Your task to perform on an android device: Check the weather Image 0: 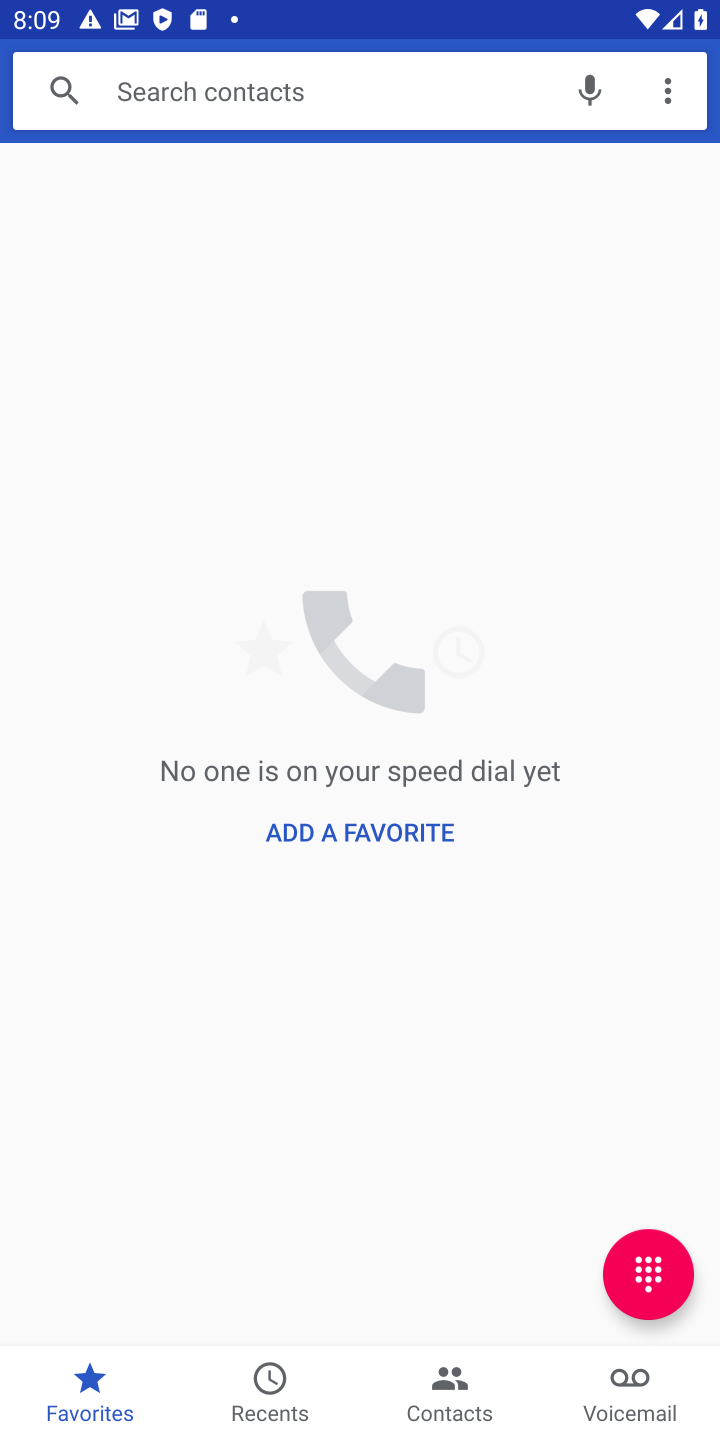
Step 0: press home button
Your task to perform on an android device: Check the weather Image 1: 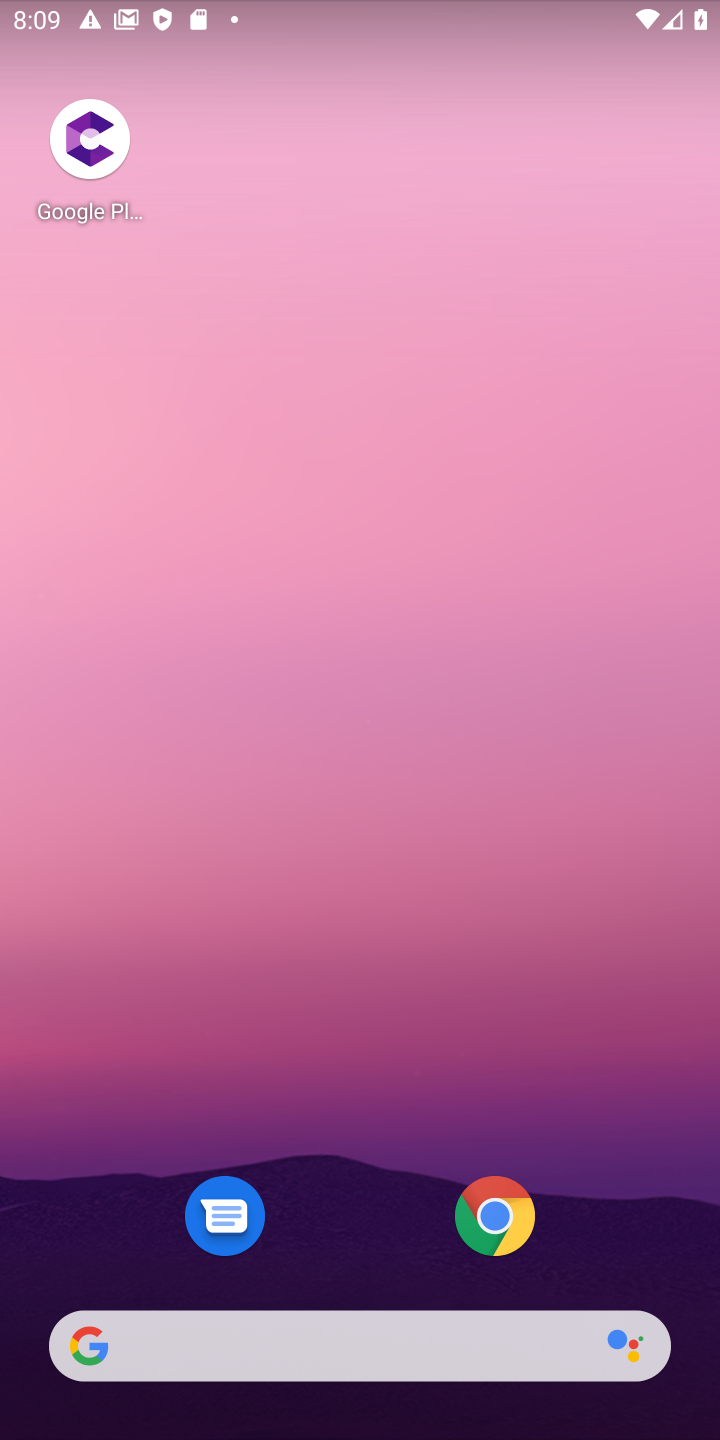
Step 1: drag from (338, 1224) to (627, 58)
Your task to perform on an android device: Check the weather Image 2: 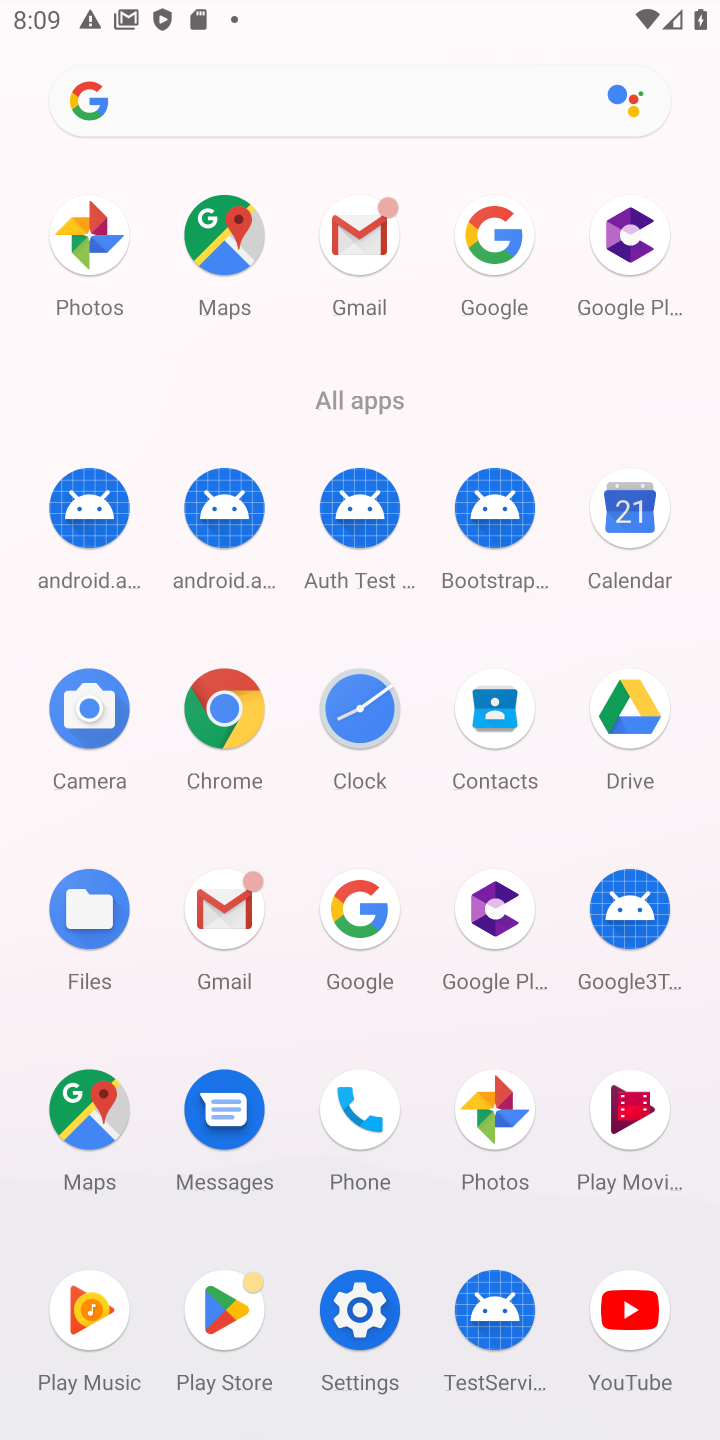
Step 2: click (209, 717)
Your task to perform on an android device: Check the weather Image 3: 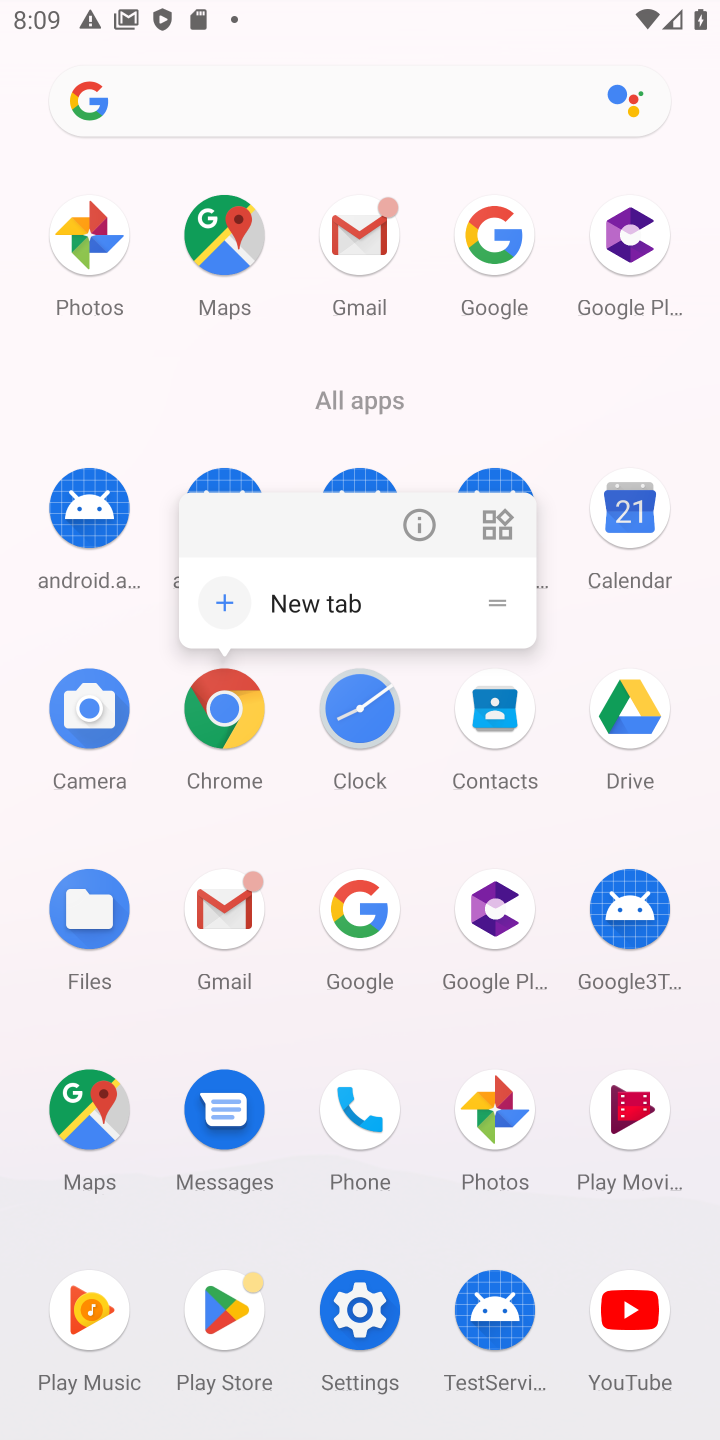
Step 3: click (226, 705)
Your task to perform on an android device: Check the weather Image 4: 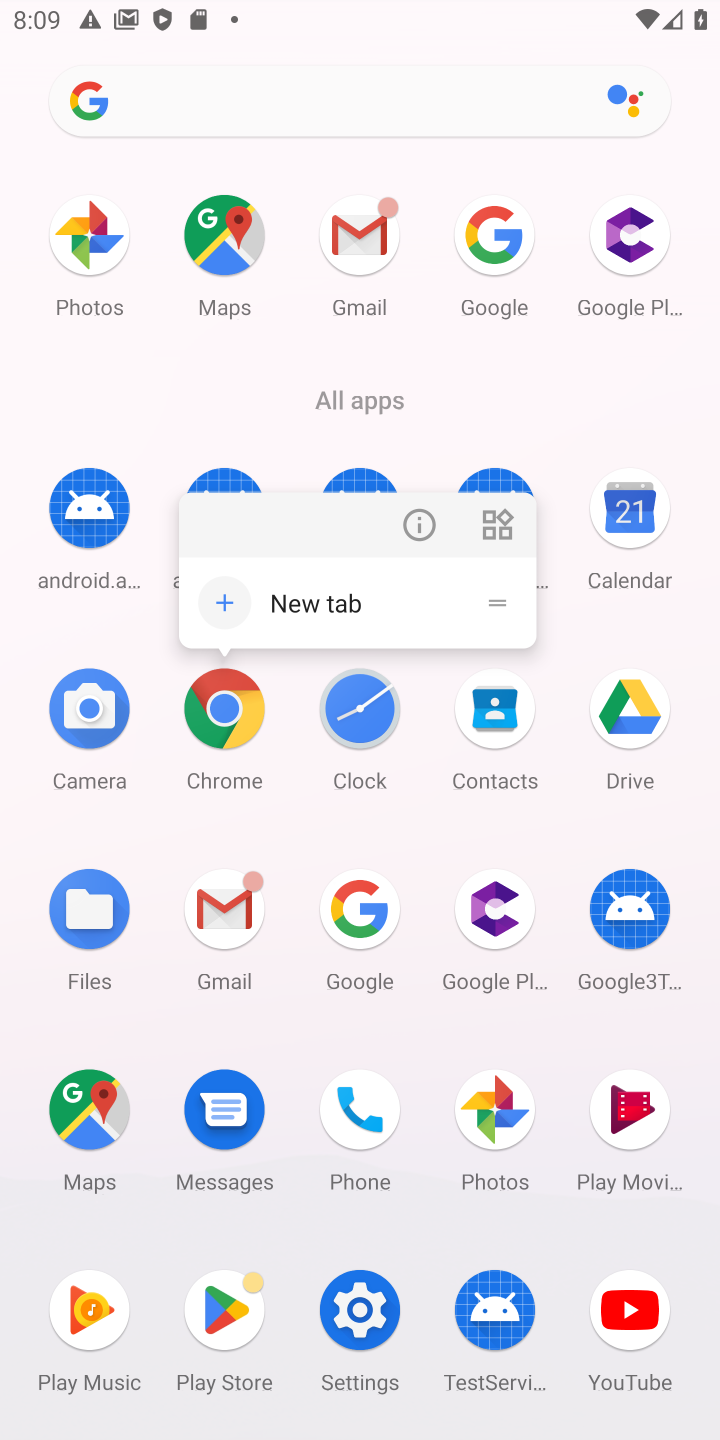
Step 4: click (215, 709)
Your task to perform on an android device: Check the weather Image 5: 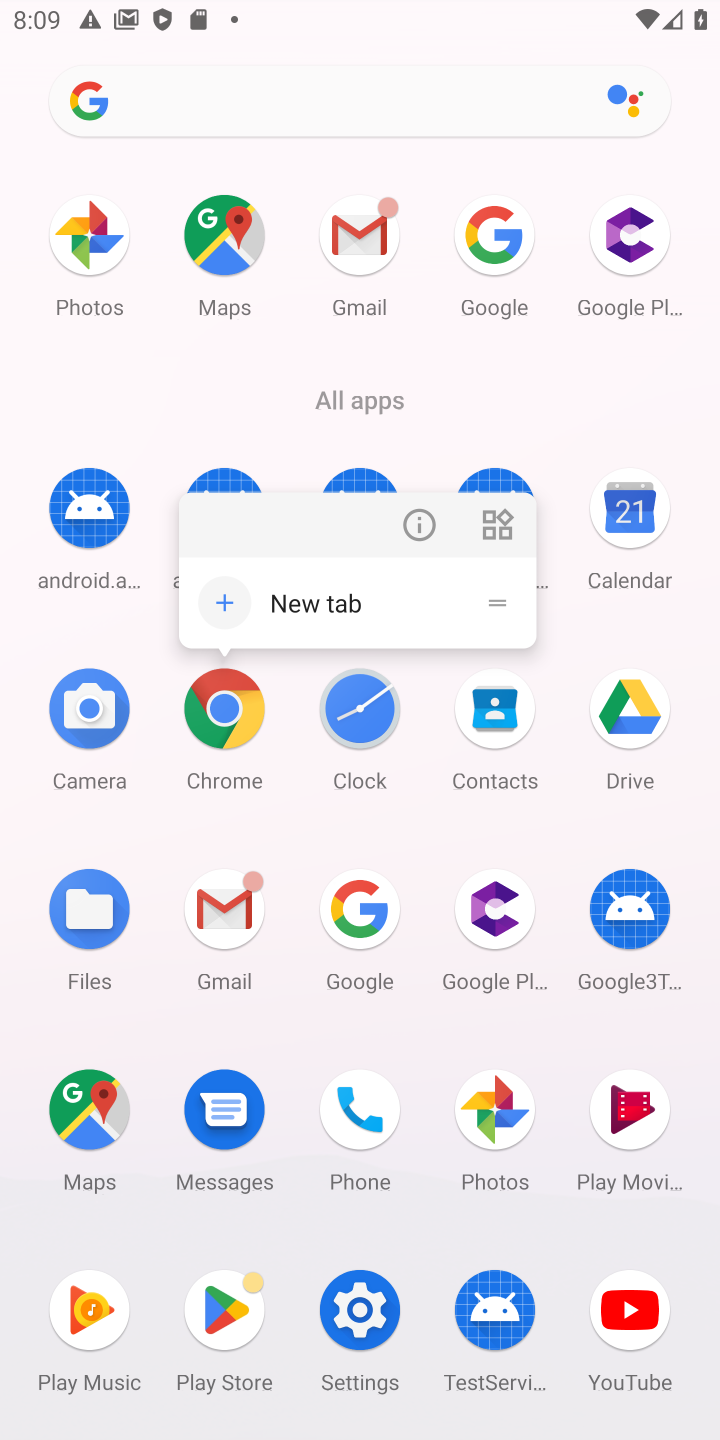
Step 5: click (215, 709)
Your task to perform on an android device: Check the weather Image 6: 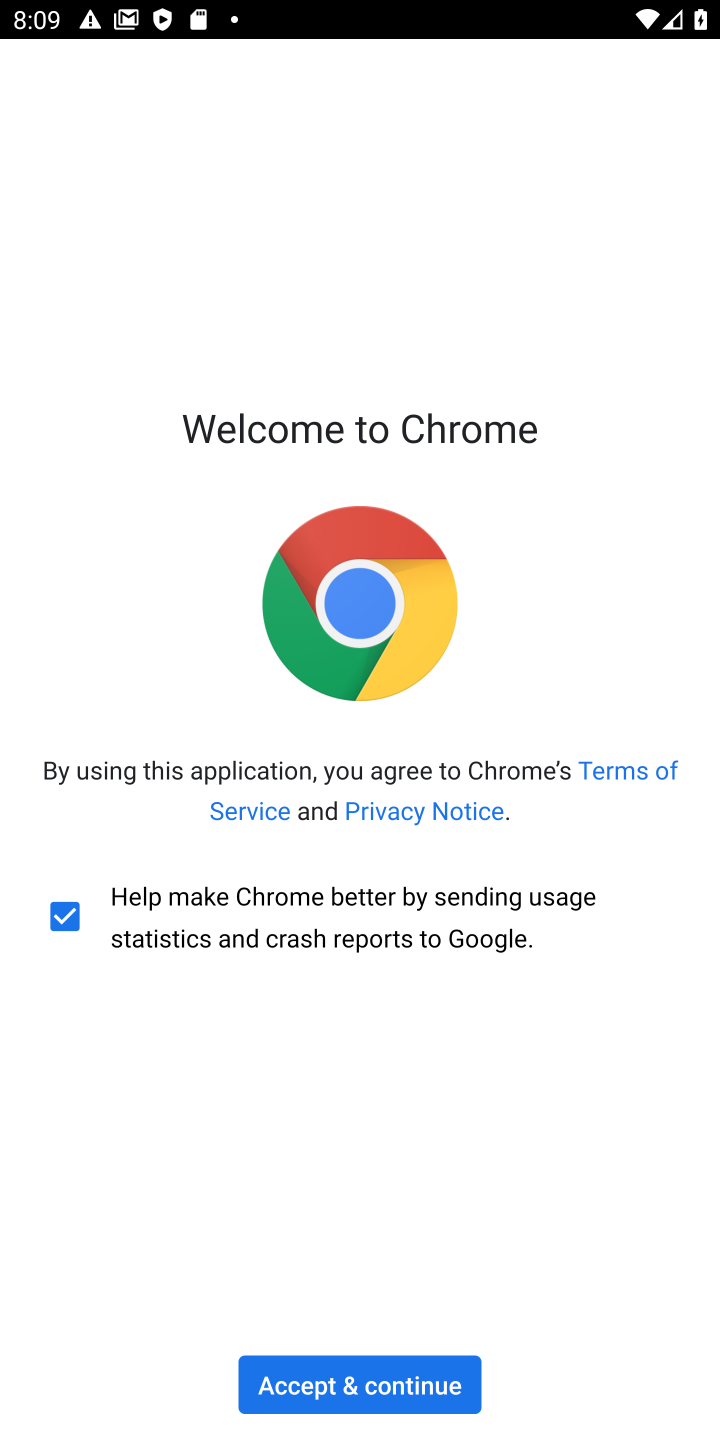
Step 6: click (360, 1372)
Your task to perform on an android device: Check the weather Image 7: 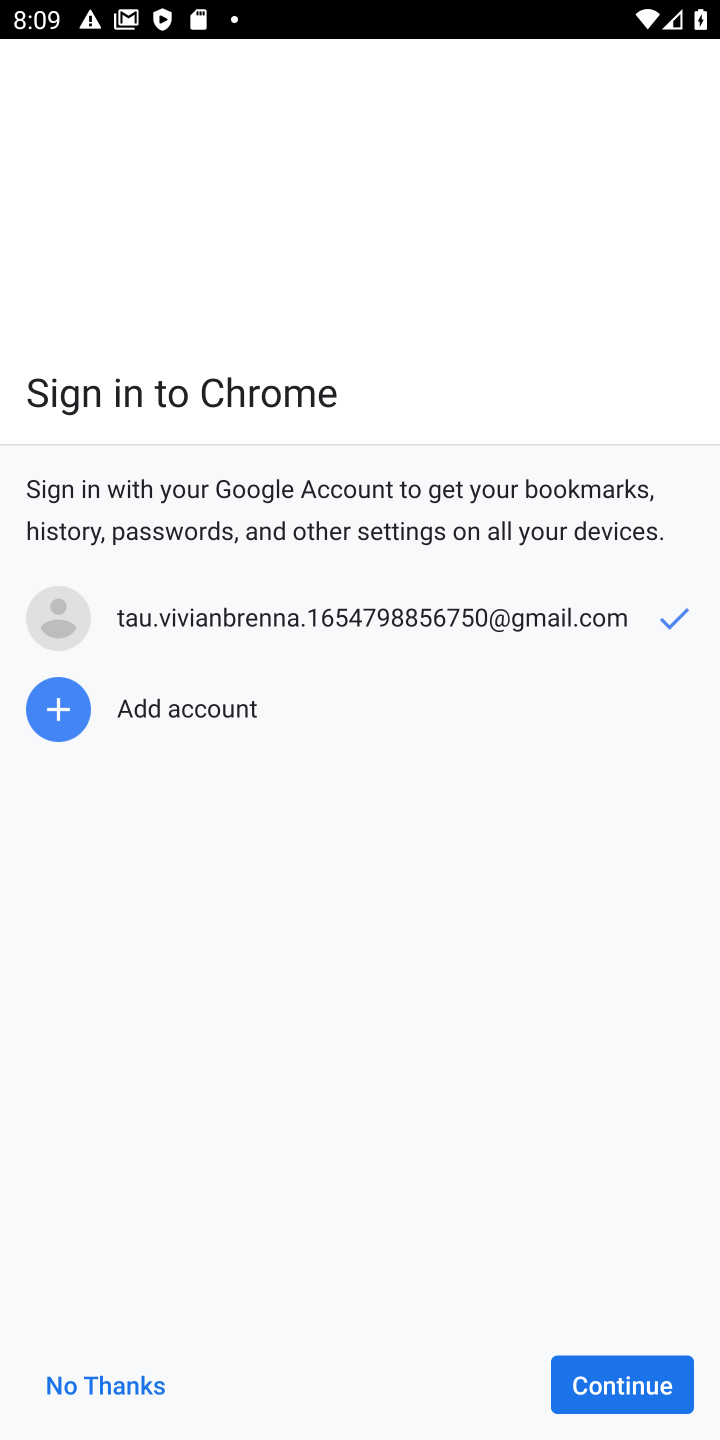
Step 7: click (624, 1373)
Your task to perform on an android device: Check the weather Image 8: 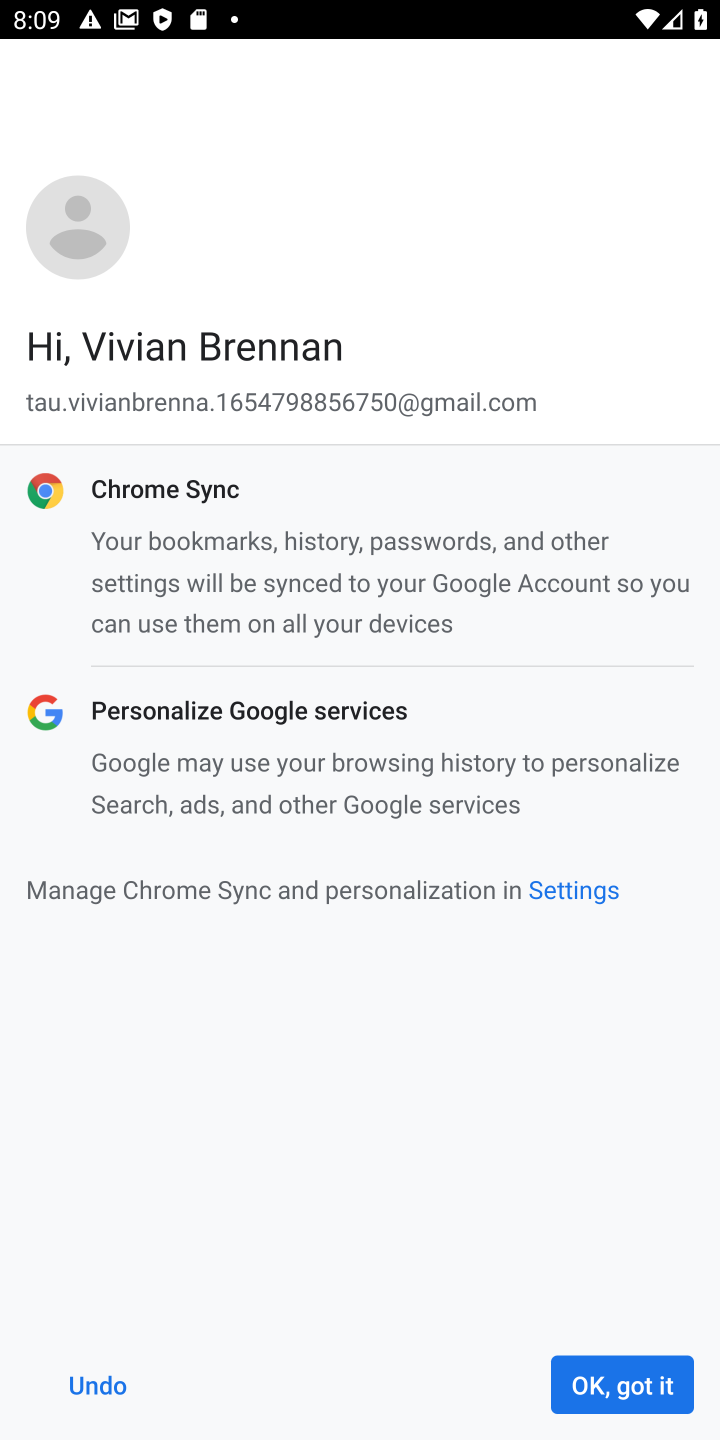
Step 8: click (624, 1373)
Your task to perform on an android device: Check the weather Image 9: 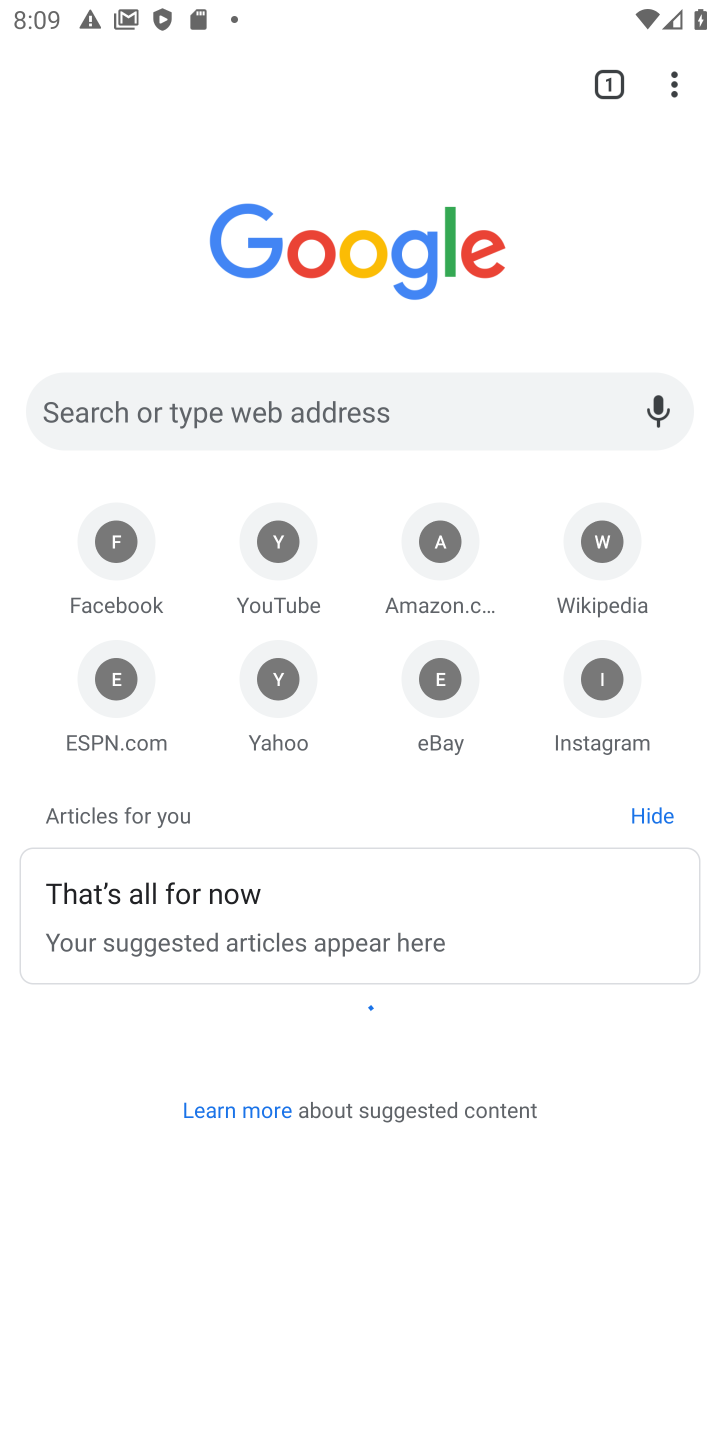
Step 9: click (533, 406)
Your task to perform on an android device: Check the weather Image 10: 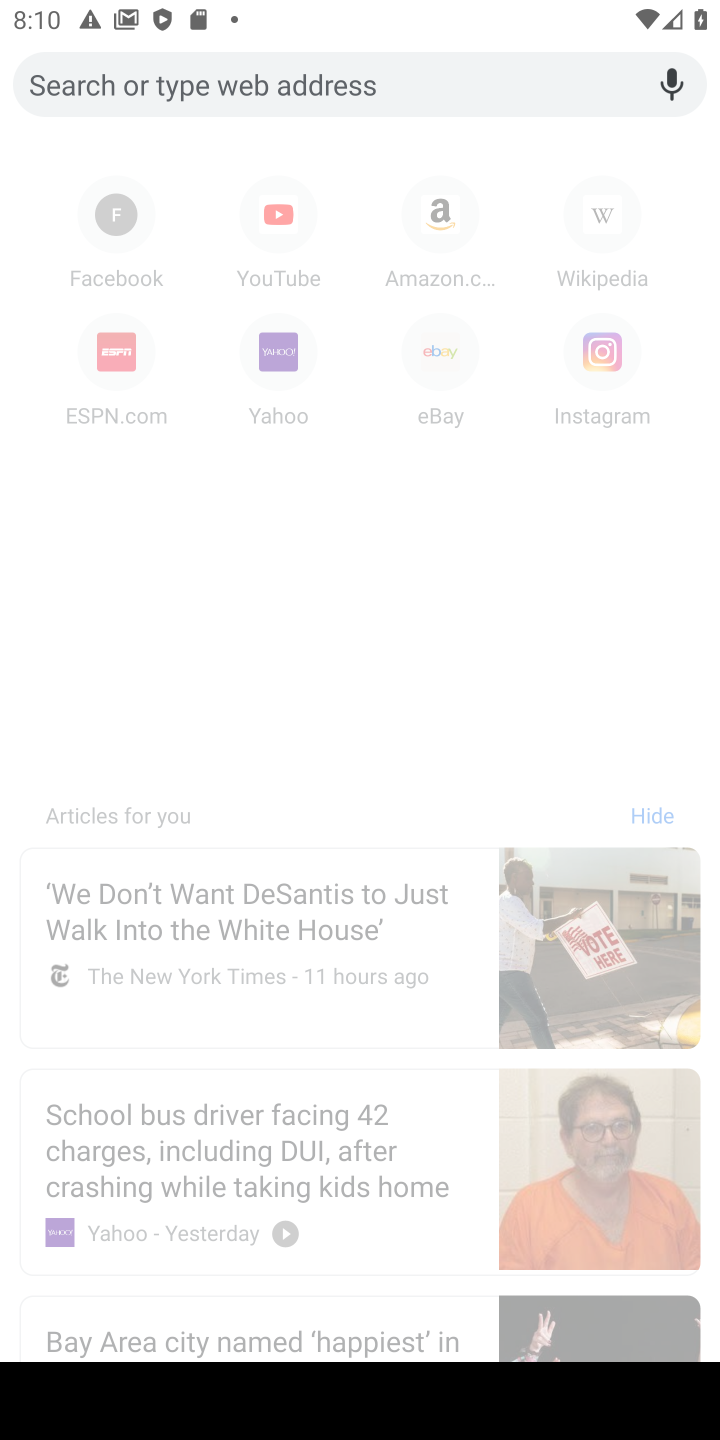
Step 10: type "weather"
Your task to perform on an android device: Check the weather Image 11: 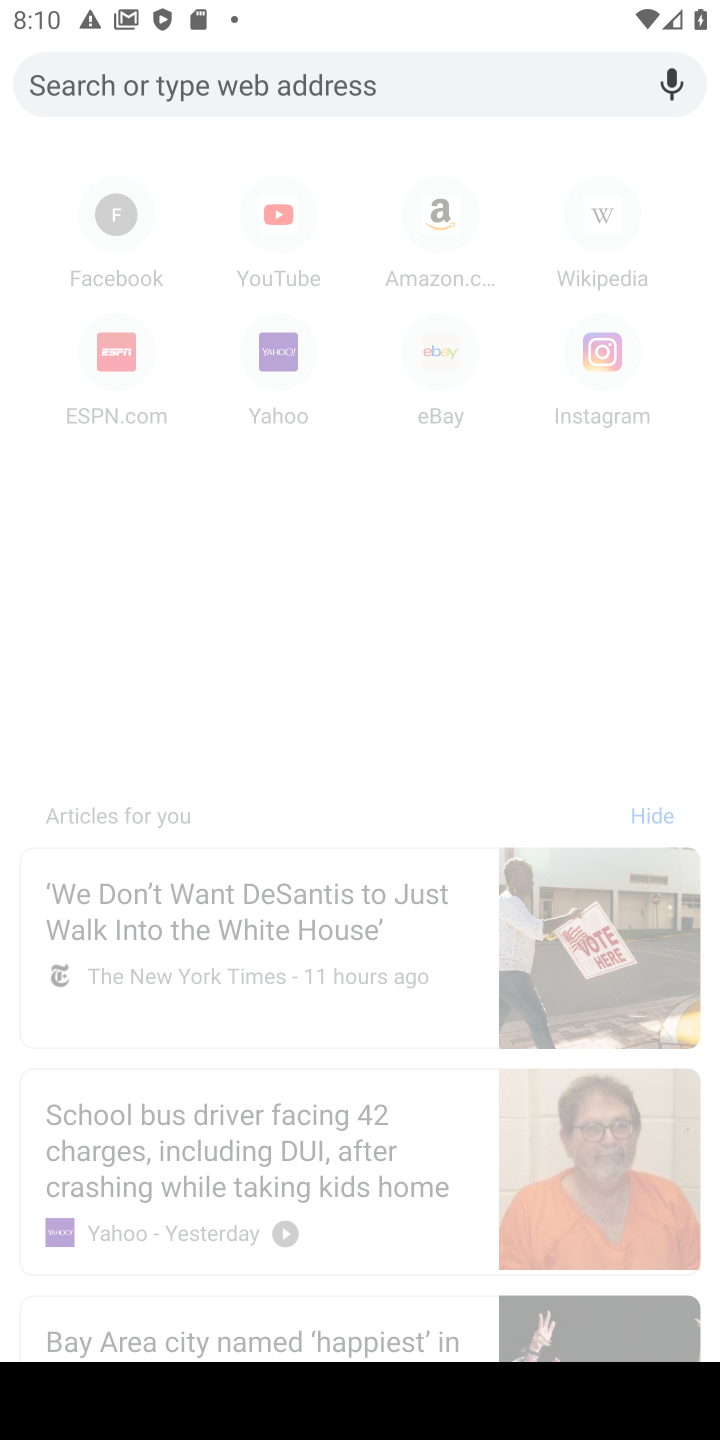
Step 11: click (155, 77)
Your task to perform on an android device: Check the weather Image 12: 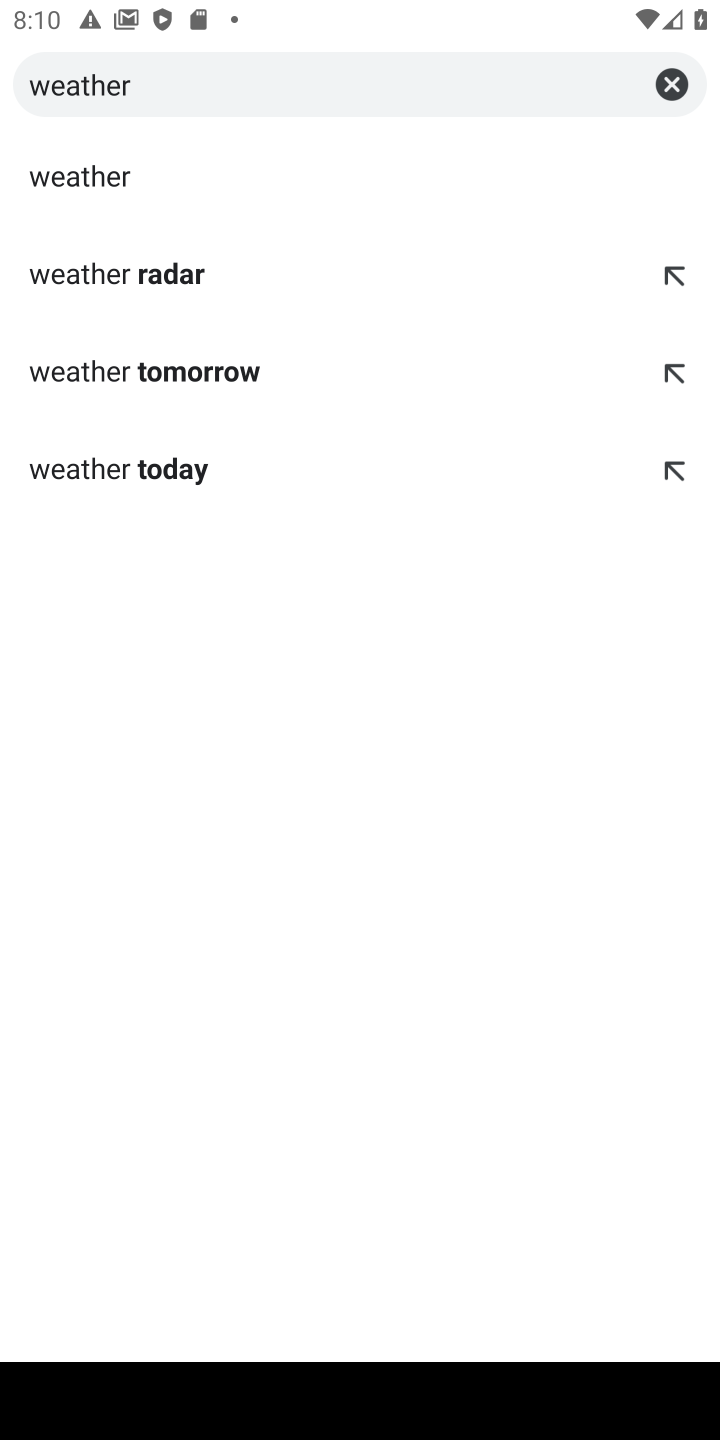
Step 12: click (97, 184)
Your task to perform on an android device: Check the weather Image 13: 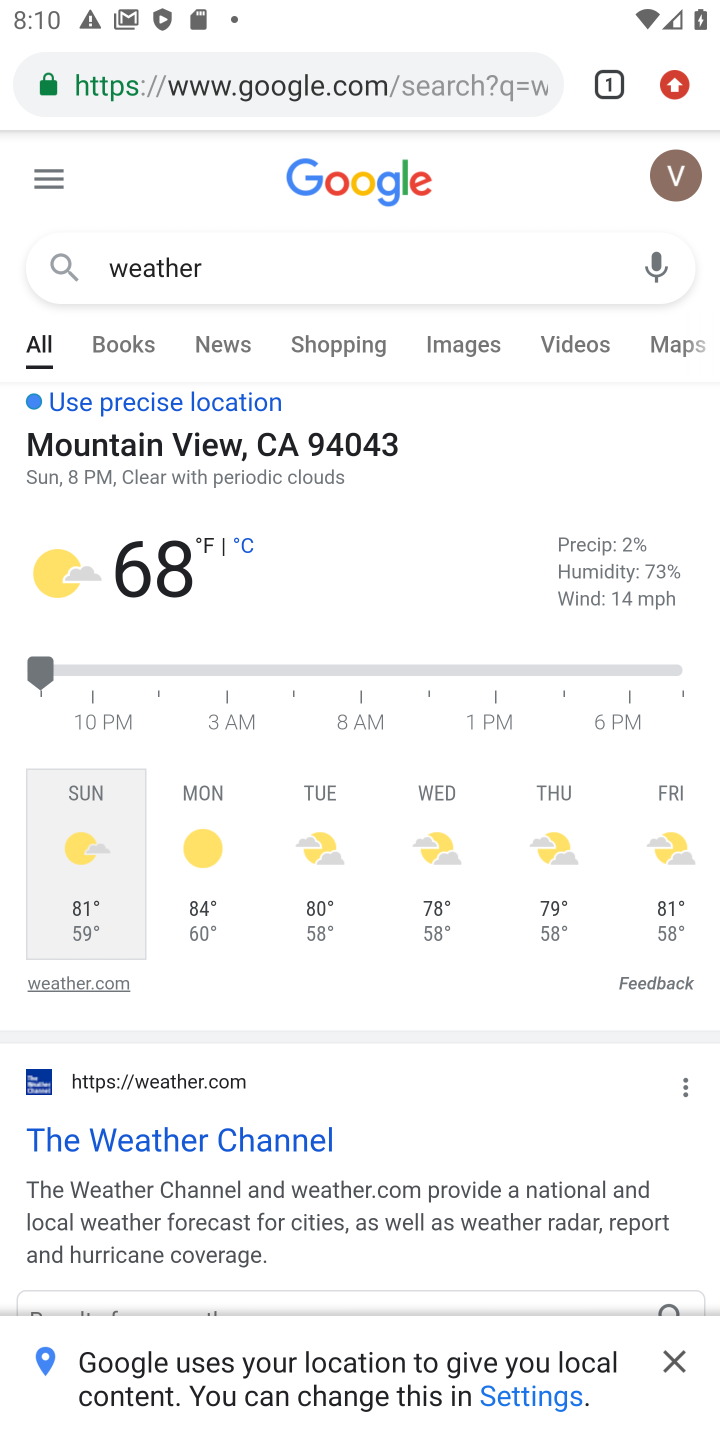
Step 13: task complete